Your task to perform on an android device: remove spam from my inbox in the gmail app Image 0: 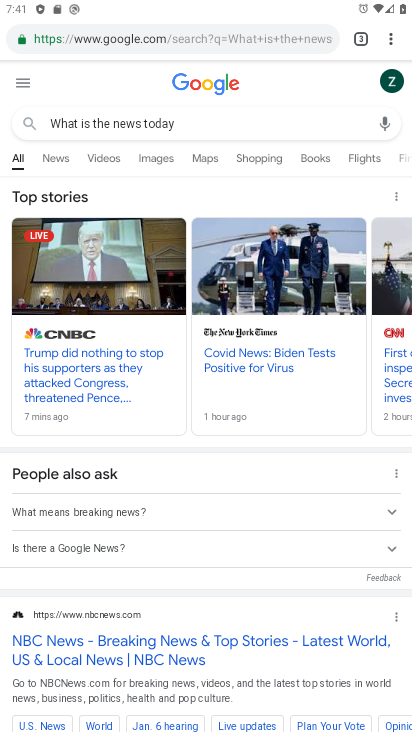
Step 0: press home button
Your task to perform on an android device: remove spam from my inbox in the gmail app Image 1: 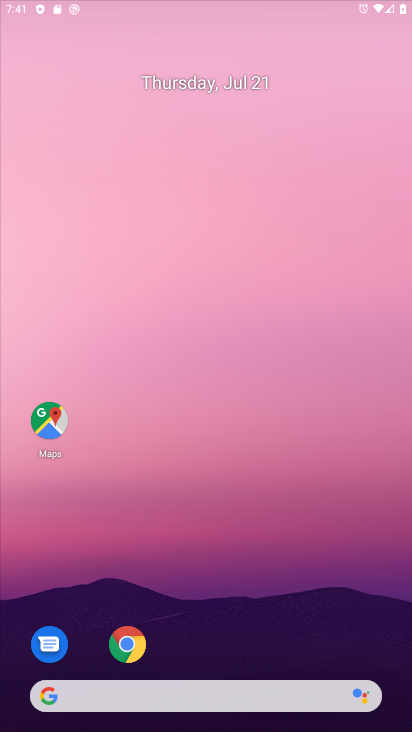
Step 1: drag from (222, 350) to (223, 235)
Your task to perform on an android device: remove spam from my inbox in the gmail app Image 2: 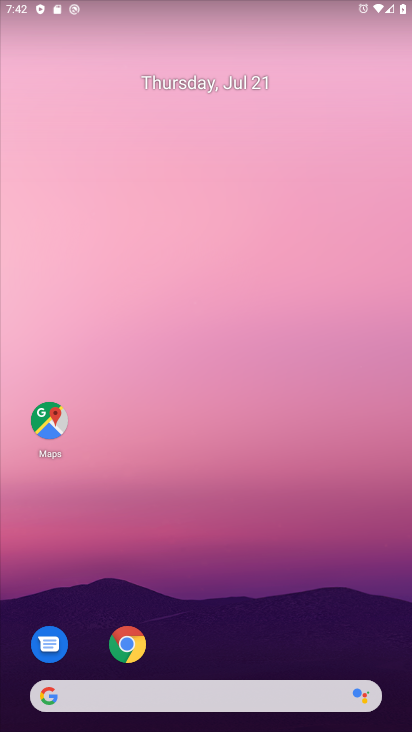
Step 2: drag from (160, 662) to (171, 248)
Your task to perform on an android device: remove spam from my inbox in the gmail app Image 3: 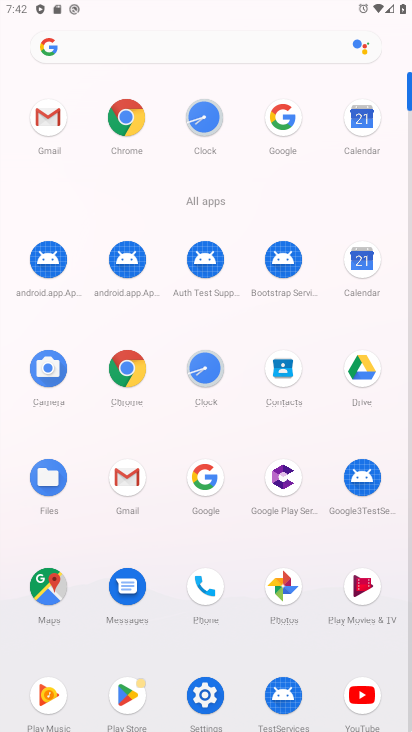
Step 3: click (124, 483)
Your task to perform on an android device: remove spam from my inbox in the gmail app Image 4: 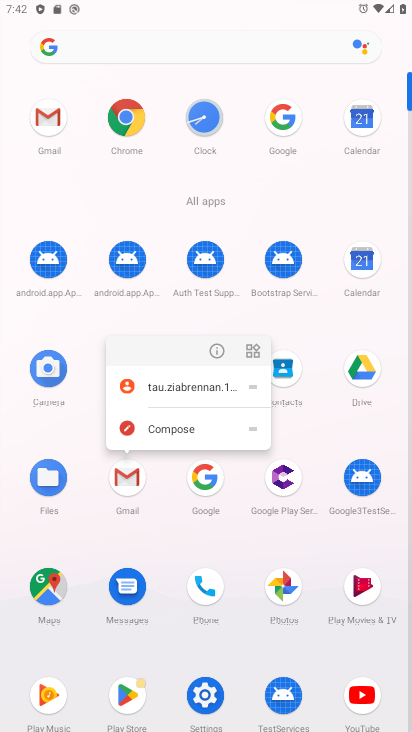
Step 4: click (116, 489)
Your task to perform on an android device: remove spam from my inbox in the gmail app Image 5: 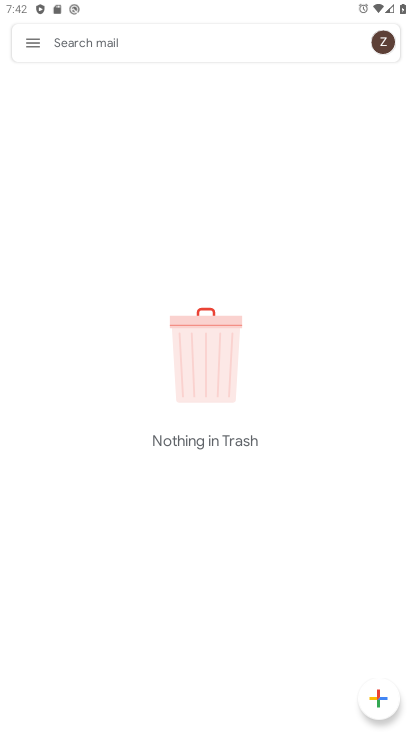
Step 5: click (38, 34)
Your task to perform on an android device: remove spam from my inbox in the gmail app Image 6: 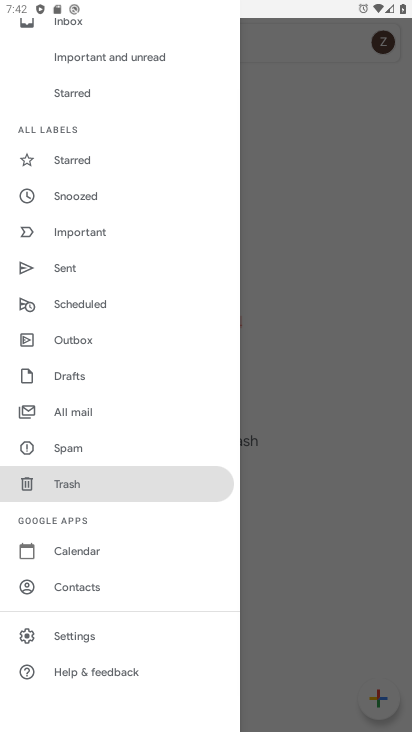
Step 6: click (75, 447)
Your task to perform on an android device: remove spam from my inbox in the gmail app Image 7: 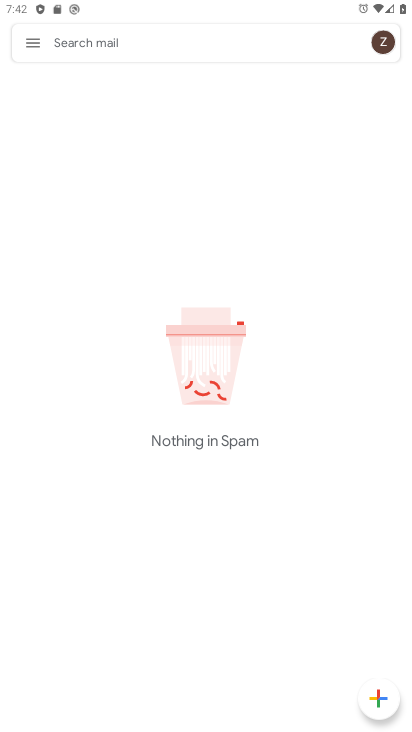
Step 7: click (21, 41)
Your task to perform on an android device: remove spam from my inbox in the gmail app Image 8: 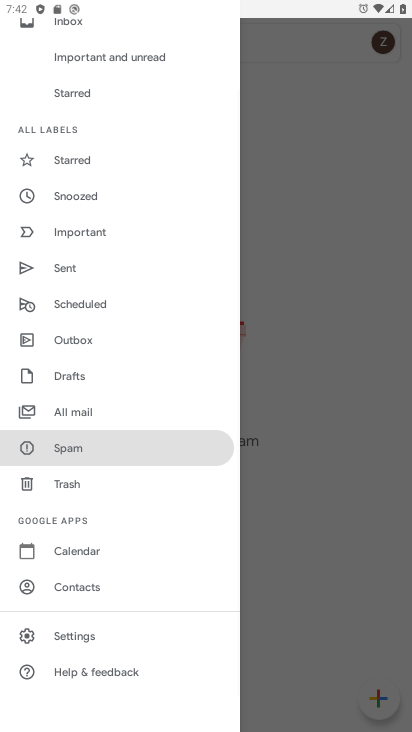
Step 8: click (106, 439)
Your task to perform on an android device: remove spam from my inbox in the gmail app Image 9: 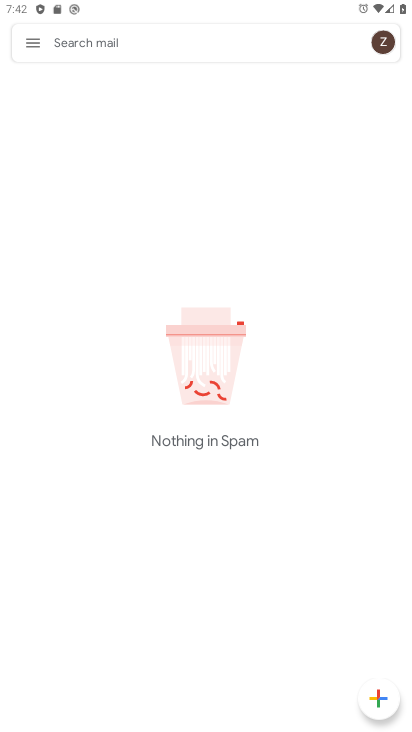
Step 9: task complete